Your task to perform on an android device: Open the map Image 0: 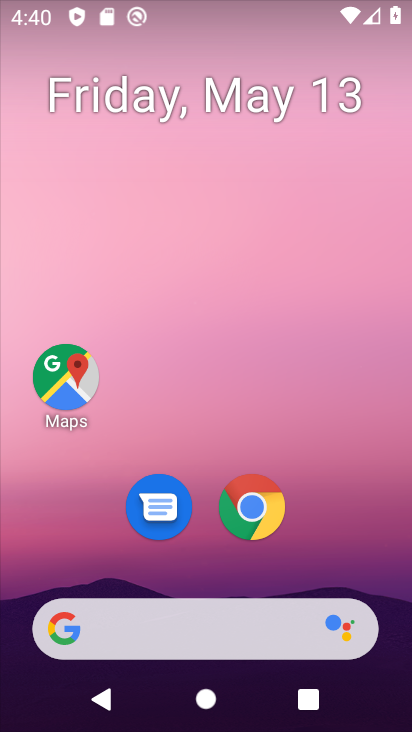
Step 0: click (68, 386)
Your task to perform on an android device: Open the map Image 1: 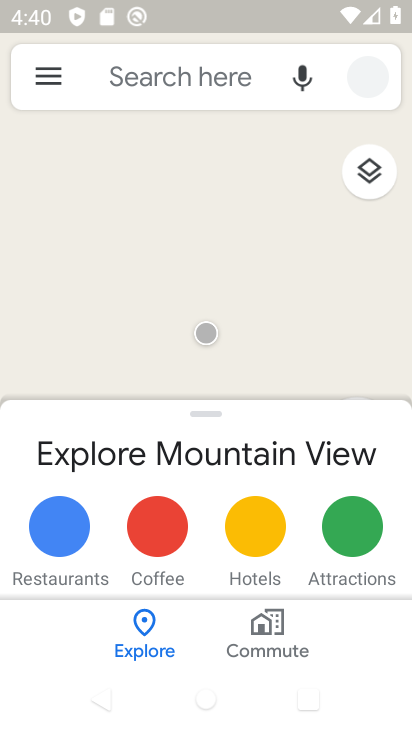
Step 1: task complete